Your task to perform on an android device: create a new album in the google photos Image 0: 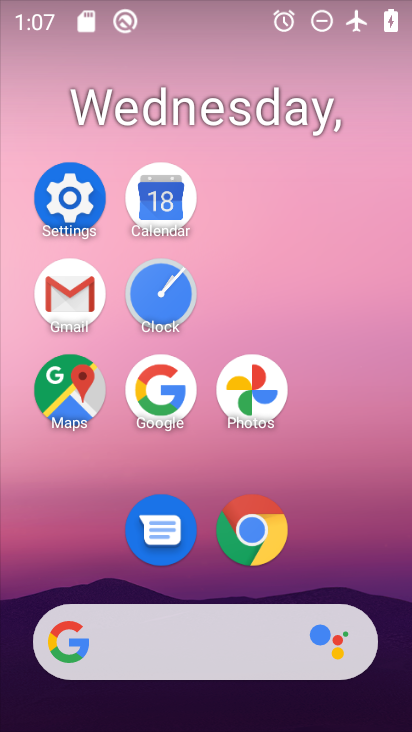
Step 0: click (259, 389)
Your task to perform on an android device: create a new album in the google photos Image 1: 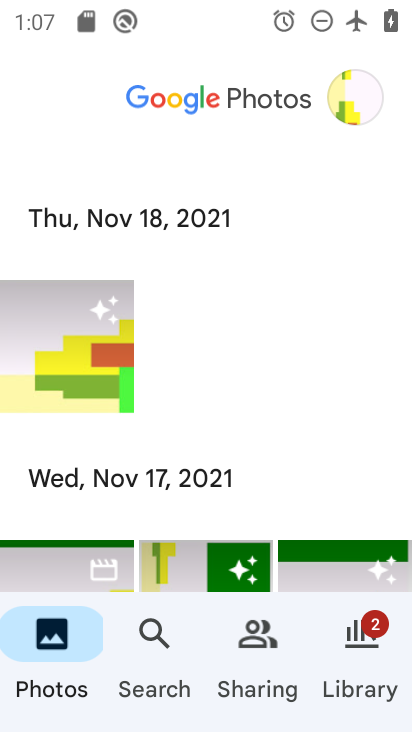
Step 1: drag from (279, 496) to (328, 166)
Your task to perform on an android device: create a new album in the google photos Image 2: 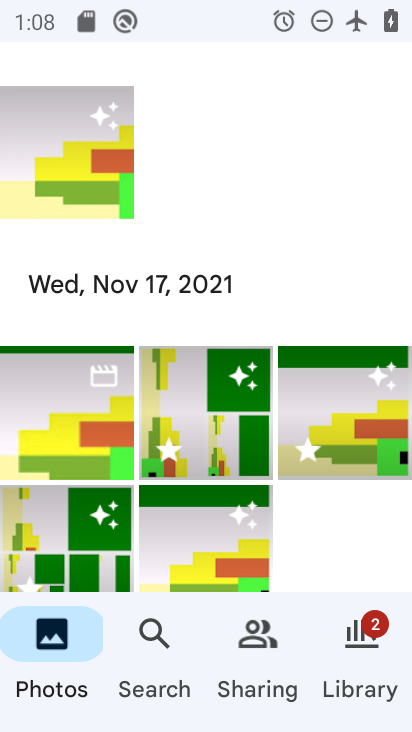
Step 2: drag from (271, 464) to (332, 124)
Your task to perform on an android device: create a new album in the google photos Image 3: 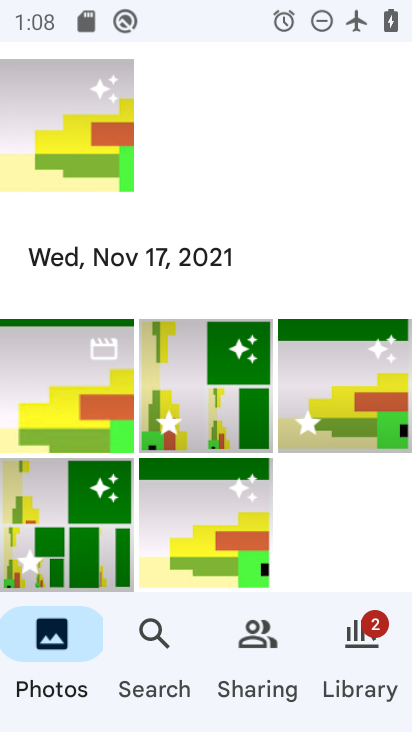
Step 3: click (349, 663)
Your task to perform on an android device: create a new album in the google photos Image 4: 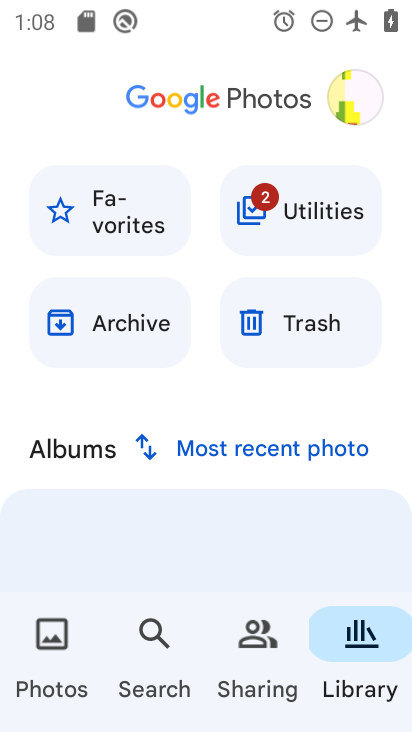
Step 4: drag from (255, 518) to (231, 159)
Your task to perform on an android device: create a new album in the google photos Image 5: 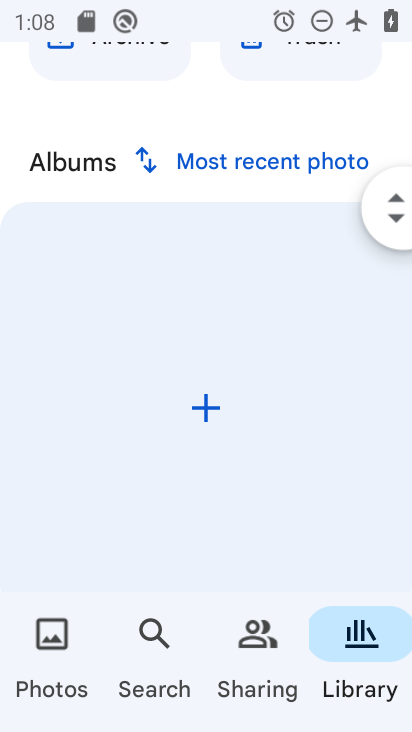
Step 5: click (208, 411)
Your task to perform on an android device: create a new album in the google photos Image 6: 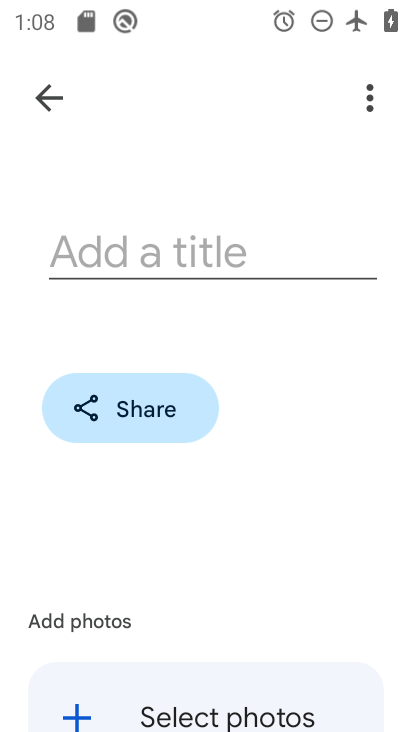
Step 6: click (225, 243)
Your task to perform on an android device: create a new album in the google photos Image 7: 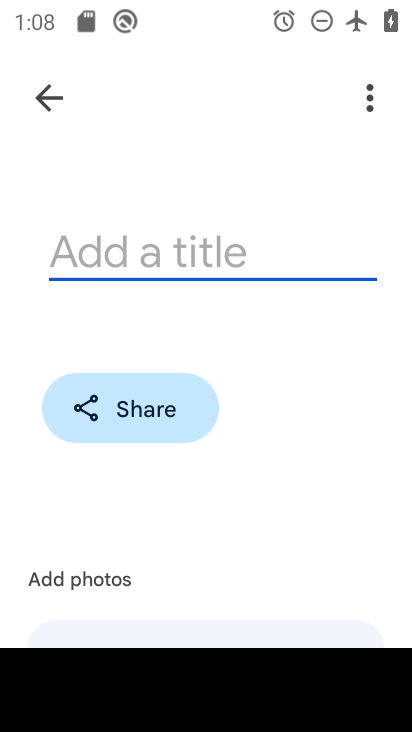
Step 7: type "yy"
Your task to perform on an android device: create a new album in the google photos Image 8: 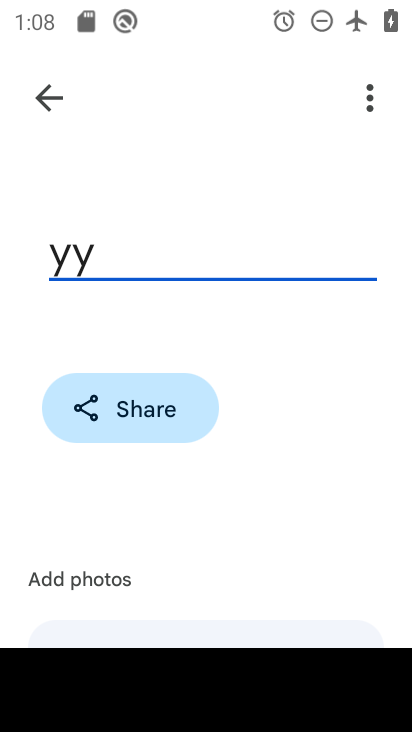
Step 8: drag from (203, 416) to (231, 211)
Your task to perform on an android device: create a new album in the google photos Image 9: 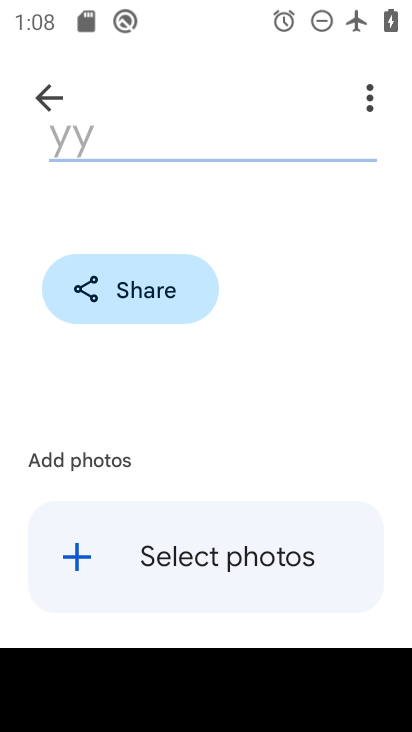
Step 9: click (202, 544)
Your task to perform on an android device: create a new album in the google photos Image 10: 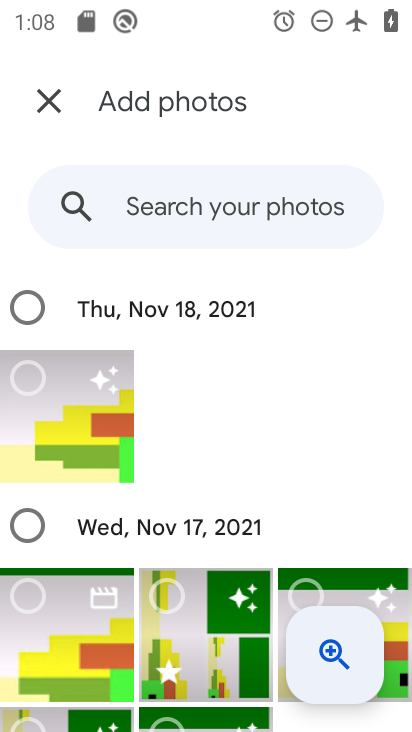
Step 10: click (54, 617)
Your task to perform on an android device: create a new album in the google photos Image 11: 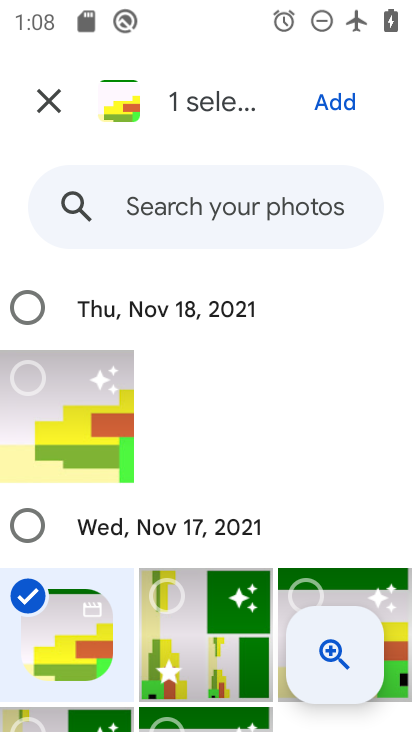
Step 11: click (169, 582)
Your task to perform on an android device: create a new album in the google photos Image 12: 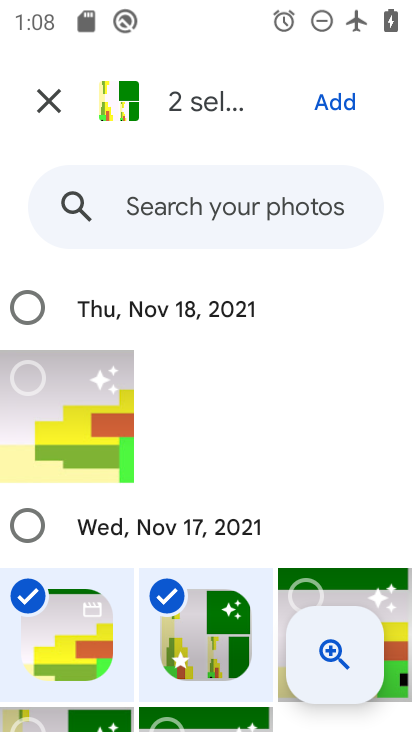
Step 12: click (339, 107)
Your task to perform on an android device: create a new album in the google photos Image 13: 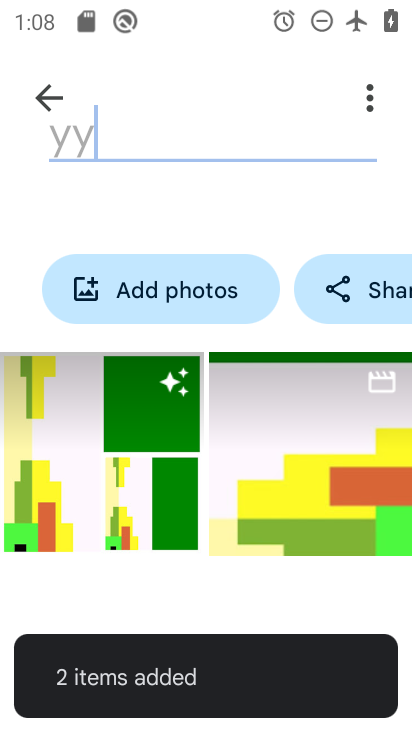
Step 13: task complete